Your task to perform on an android device: Go to Maps Image 0: 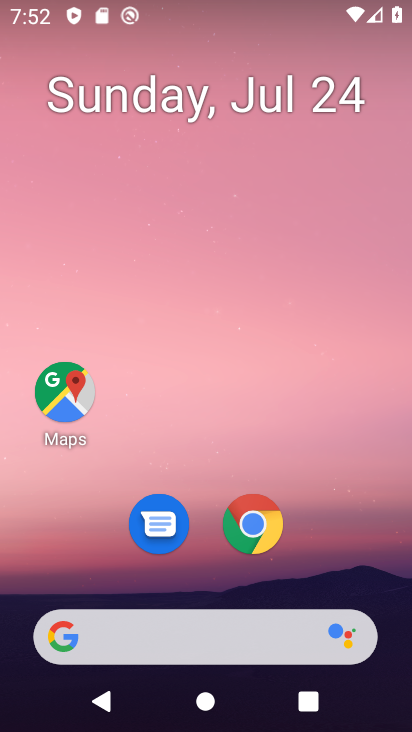
Step 0: click (74, 392)
Your task to perform on an android device: Go to Maps Image 1: 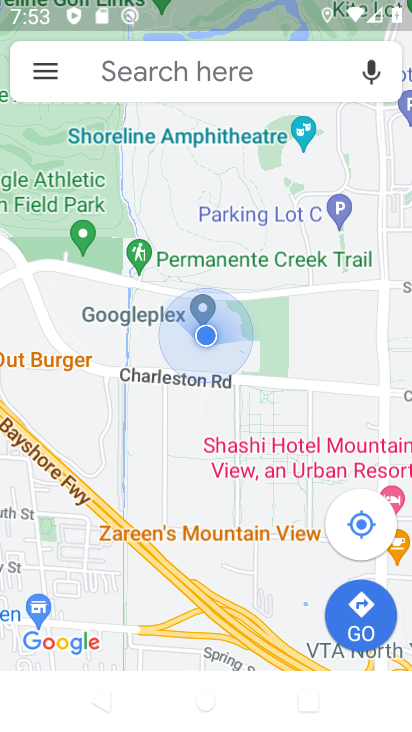
Step 1: task complete